Your task to perform on an android device: toggle airplane mode Image 0: 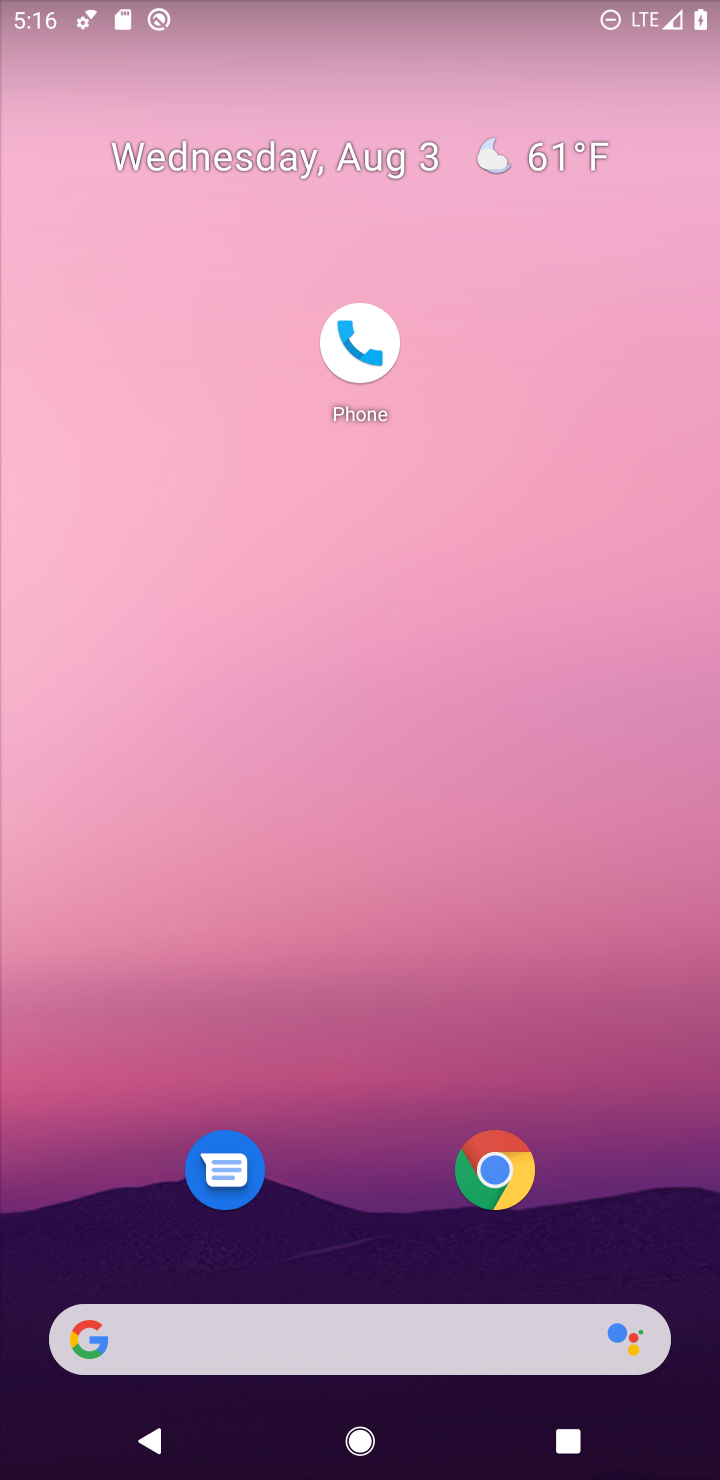
Step 0: drag from (326, 882) to (331, 0)
Your task to perform on an android device: toggle airplane mode Image 1: 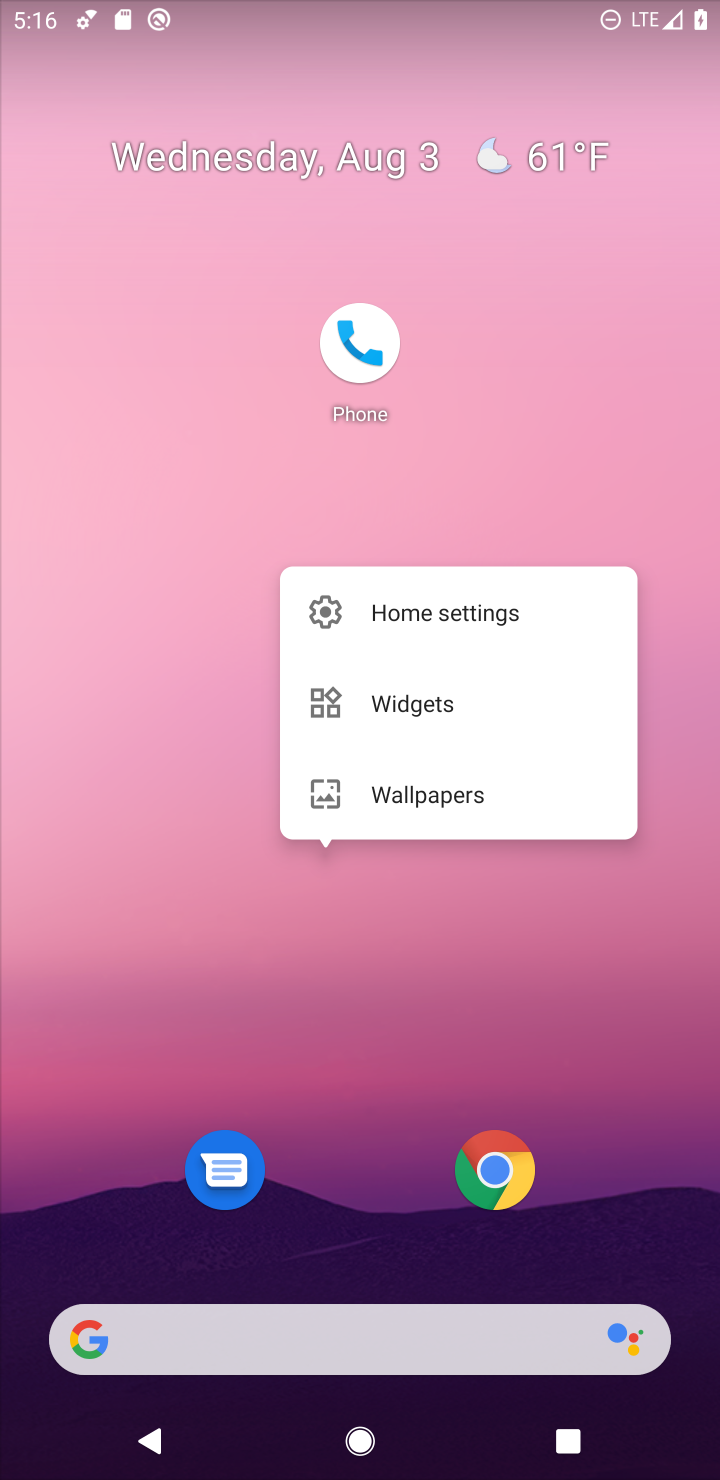
Step 1: click (396, 1191)
Your task to perform on an android device: toggle airplane mode Image 2: 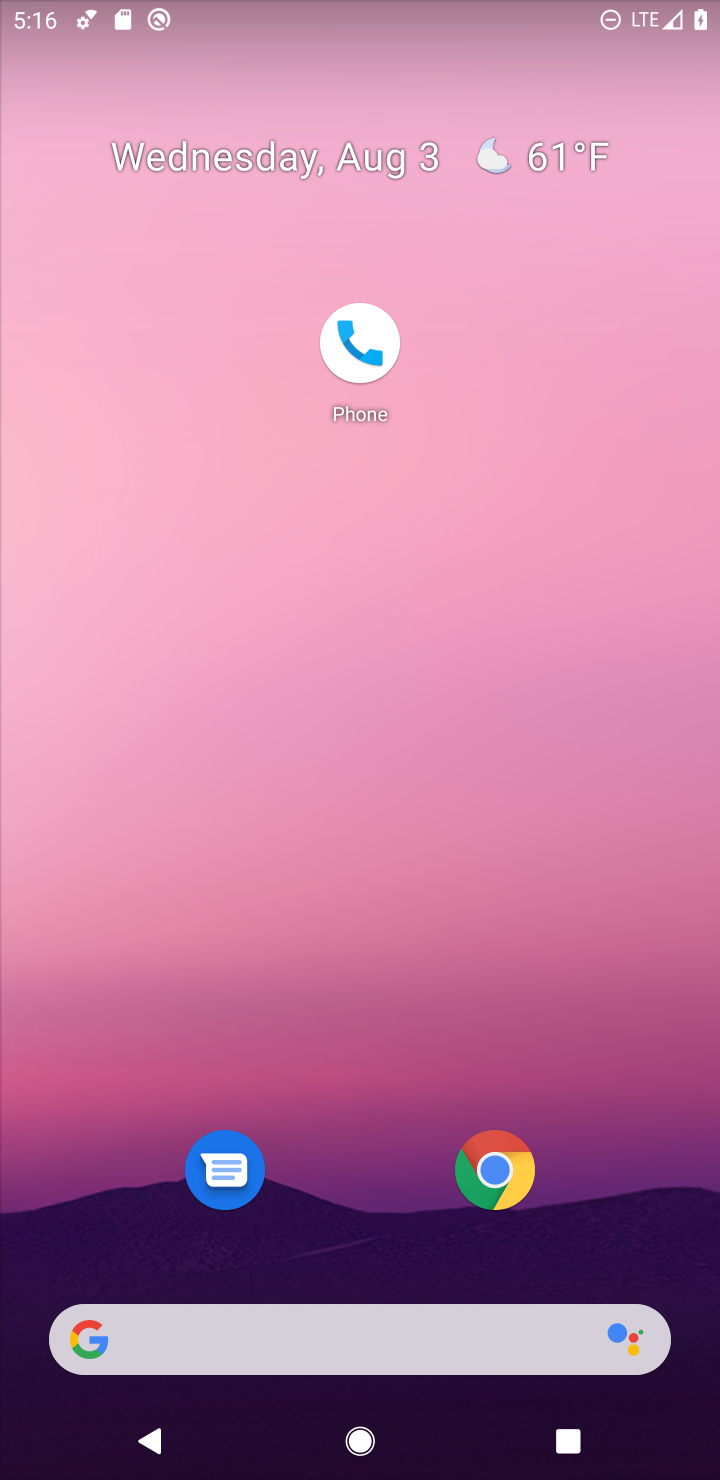
Step 2: drag from (373, 1061) to (348, 21)
Your task to perform on an android device: toggle airplane mode Image 3: 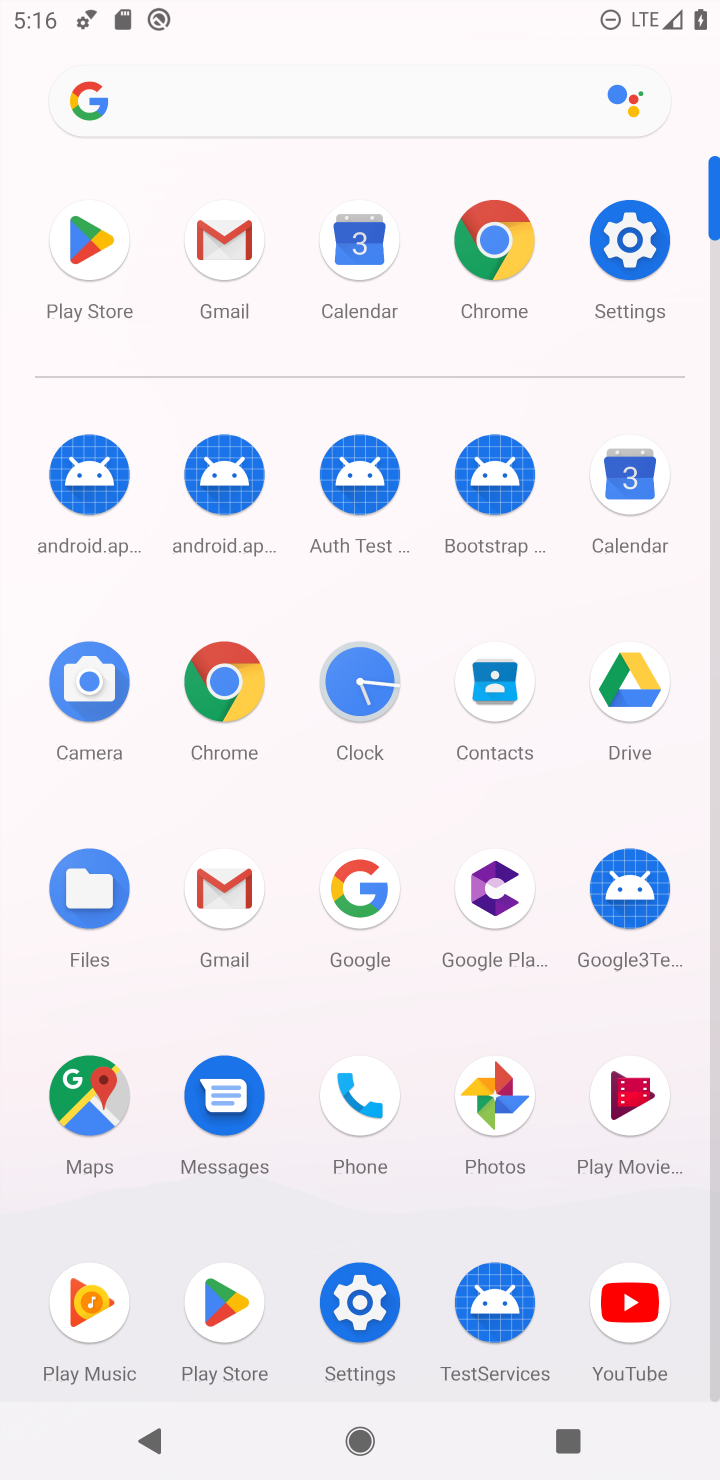
Step 3: click (631, 241)
Your task to perform on an android device: toggle airplane mode Image 4: 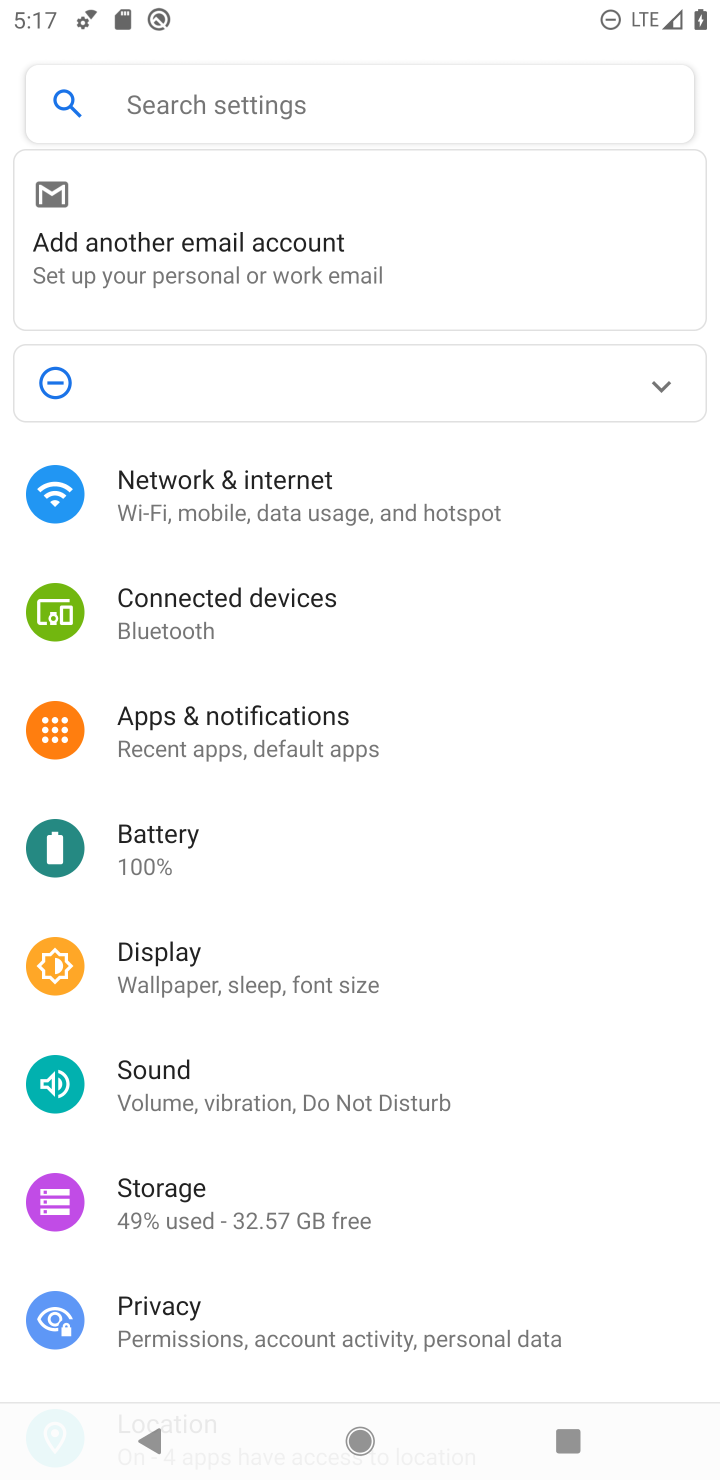
Step 4: click (248, 489)
Your task to perform on an android device: toggle airplane mode Image 5: 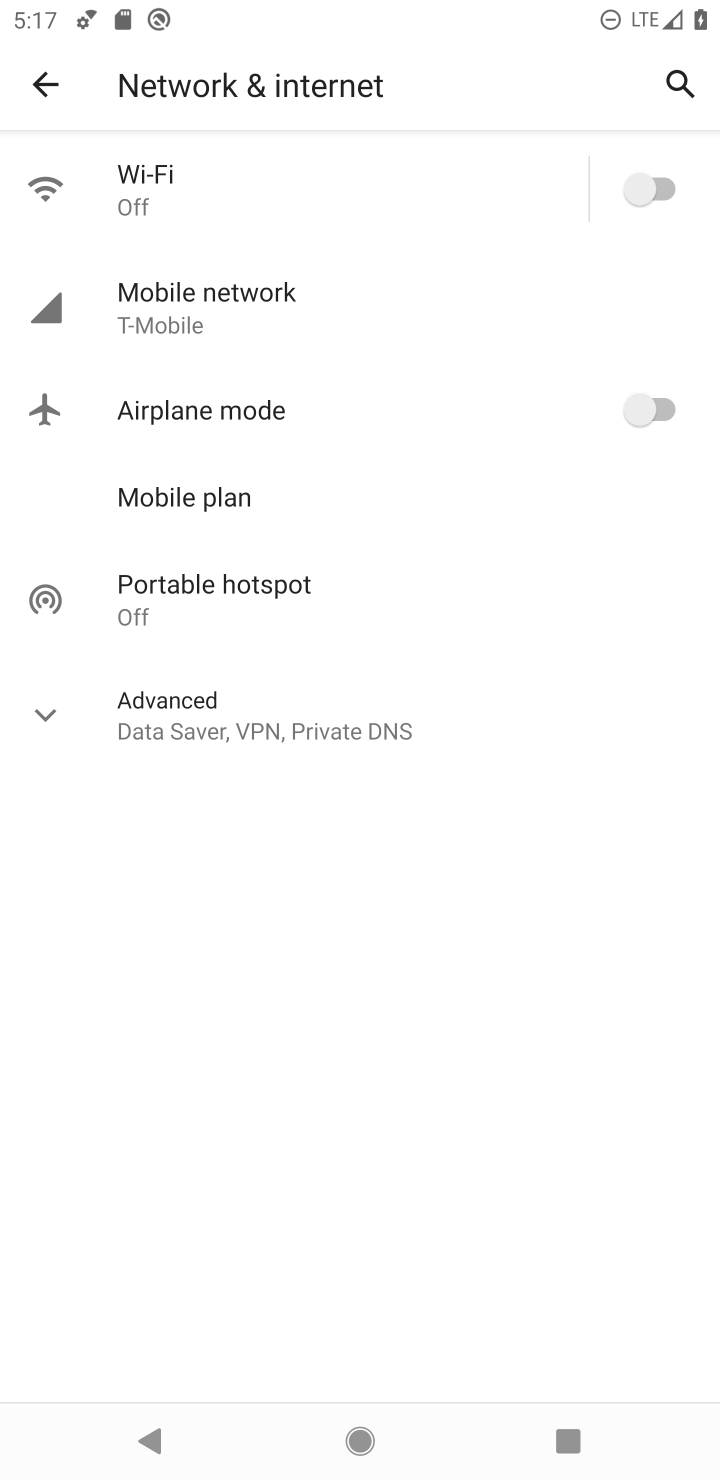
Step 5: click (675, 419)
Your task to perform on an android device: toggle airplane mode Image 6: 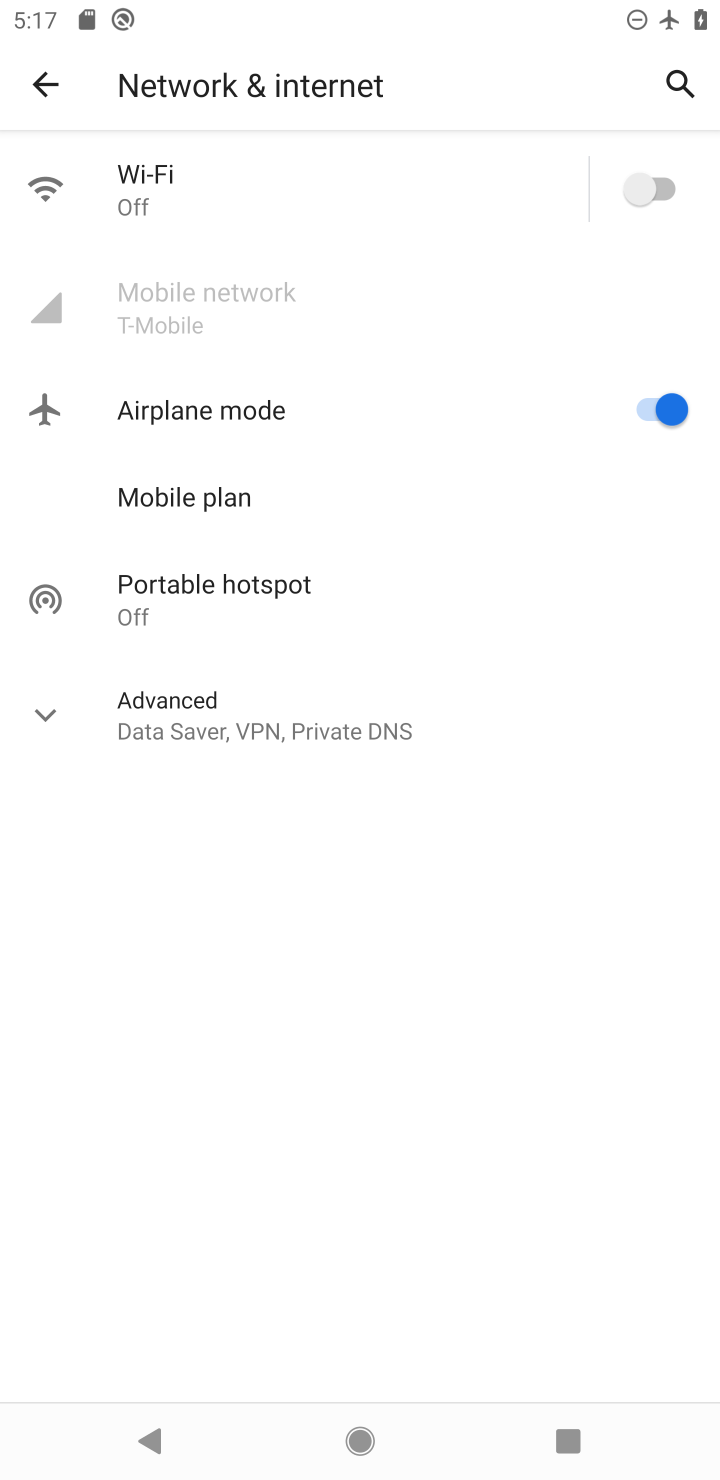
Step 6: task complete